Your task to perform on an android device: Add "macbook" to the cart on target.com, then select checkout. Image 0: 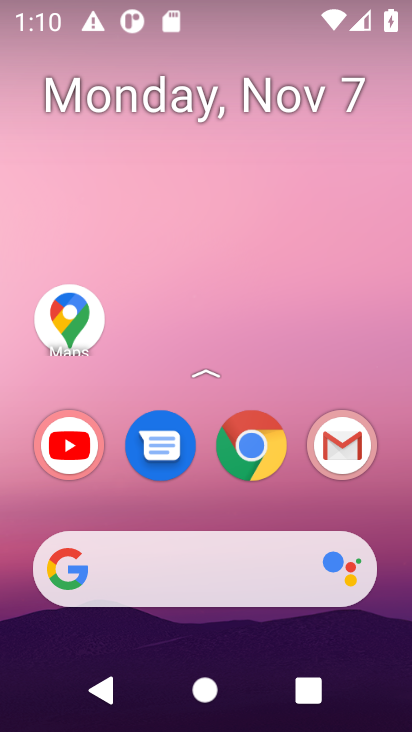
Step 0: click (250, 442)
Your task to perform on an android device: Add "macbook" to the cart on target.com, then select checkout. Image 1: 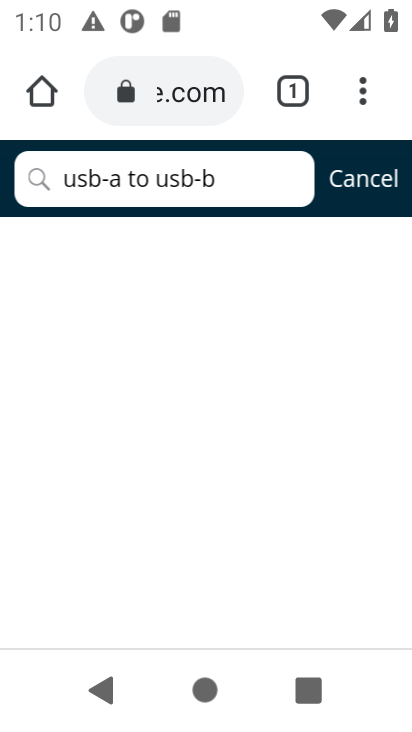
Step 1: click (199, 86)
Your task to perform on an android device: Add "macbook" to the cart on target.com, then select checkout. Image 2: 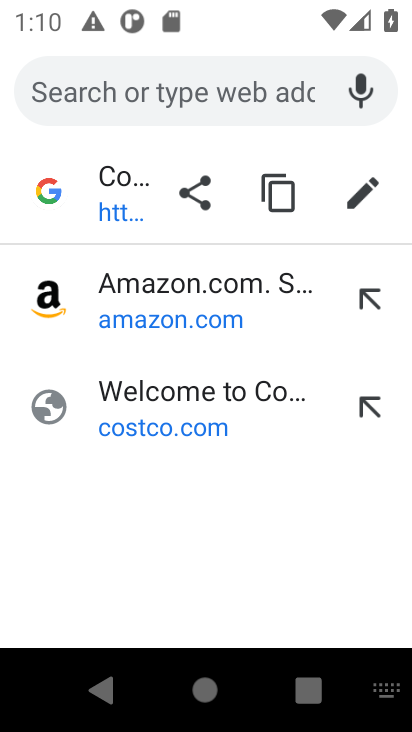
Step 2: type "target.com"
Your task to perform on an android device: Add "macbook" to the cart on target.com, then select checkout. Image 3: 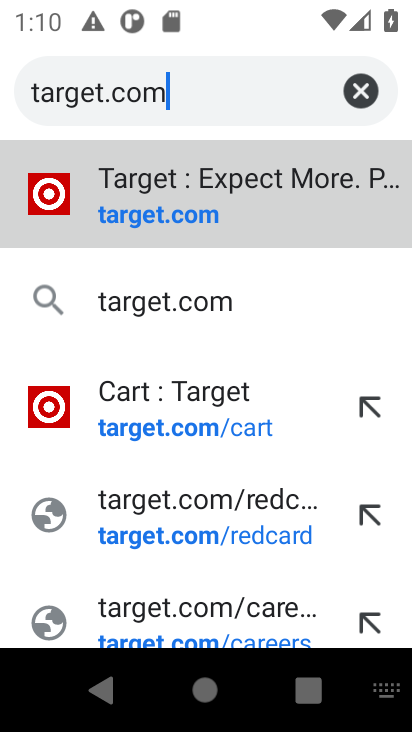
Step 3: click (198, 298)
Your task to perform on an android device: Add "macbook" to the cart on target.com, then select checkout. Image 4: 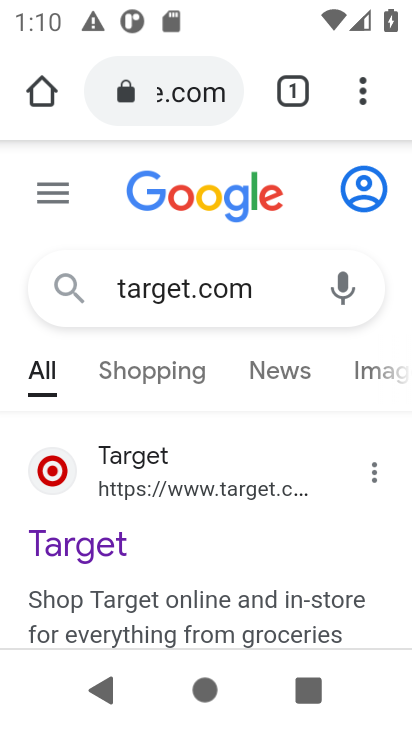
Step 4: click (187, 489)
Your task to perform on an android device: Add "macbook" to the cart on target.com, then select checkout. Image 5: 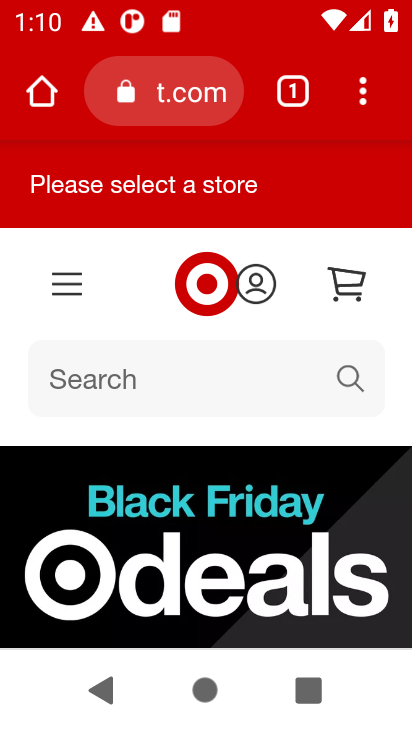
Step 5: click (352, 385)
Your task to perform on an android device: Add "macbook" to the cart on target.com, then select checkout. Image 6: 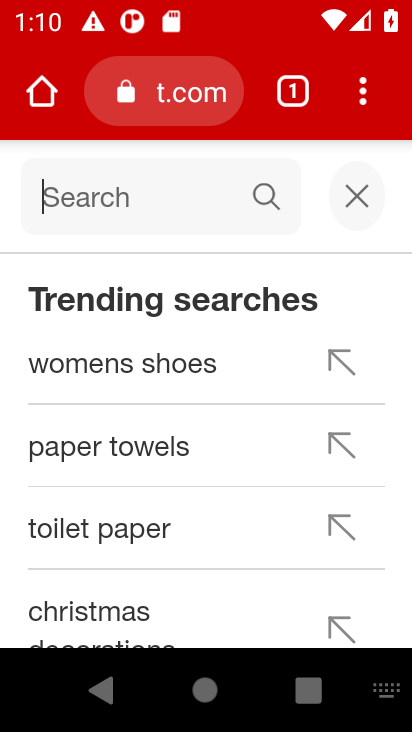
Step 6: type "macbook"
Your task to perform on an android device: Add "macbook" to the cart on target.com, then select checkout. Image 7: 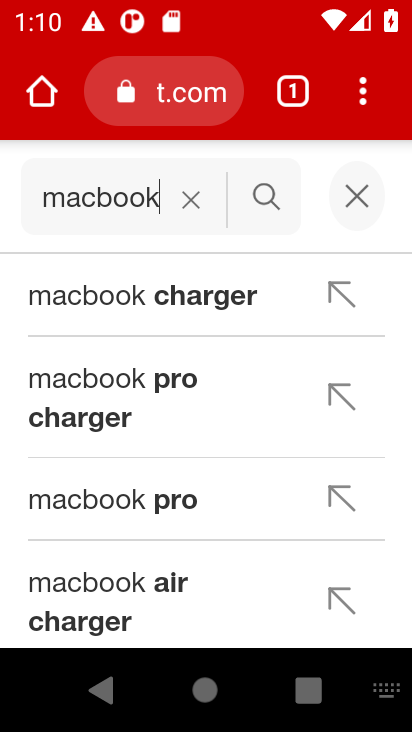
Step 7: drag from (212, 525) to (206, 207)
Your task to perform on an android device: Add "macbook" to the cart on target.com, then select checkout. Image 8: 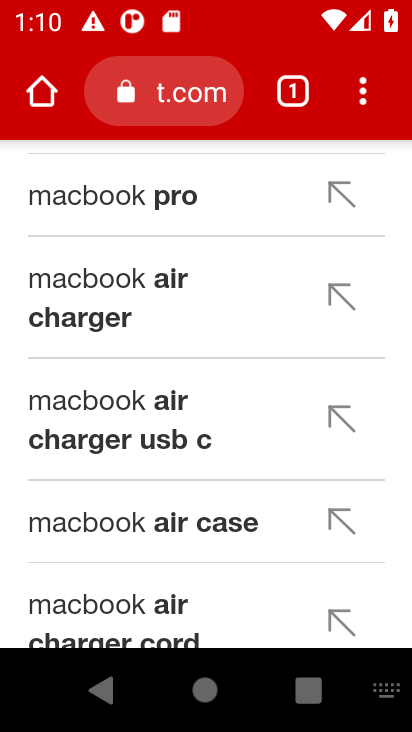
Step 8: drag from (214, 509) to (223, 200)
Your task to perform on an android device: Add "macbook" to the cart on target.com, then select checkout. Image 9: 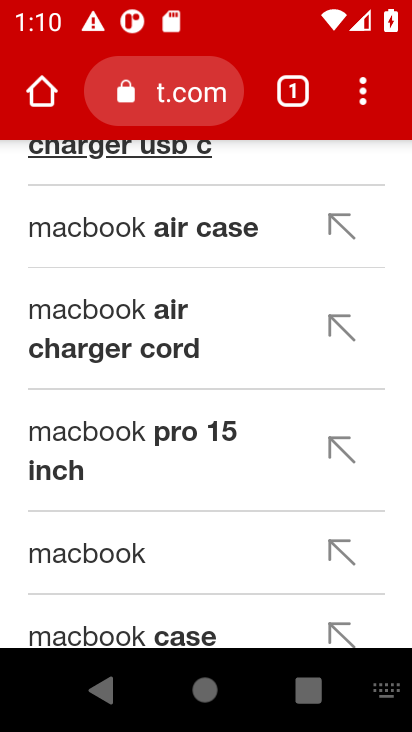
Step 9: click (125, 548)
Your task to perform on an android device: Add "macbook" to the cart on target.com, then select checkout. Image 10: 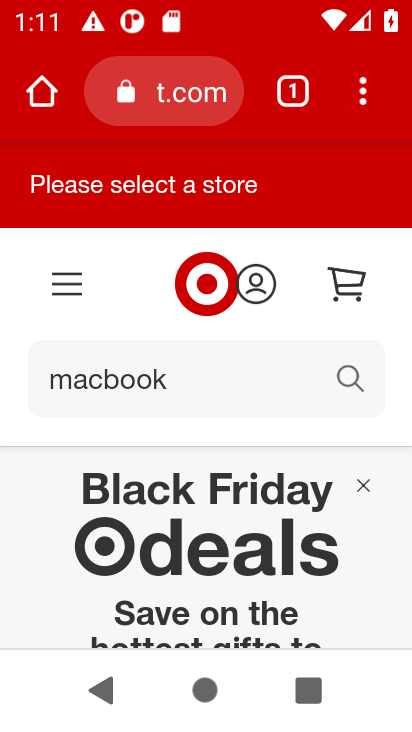
Step 10: task complete